Your task to perform on an android device: turn on sleep mode Image 0: 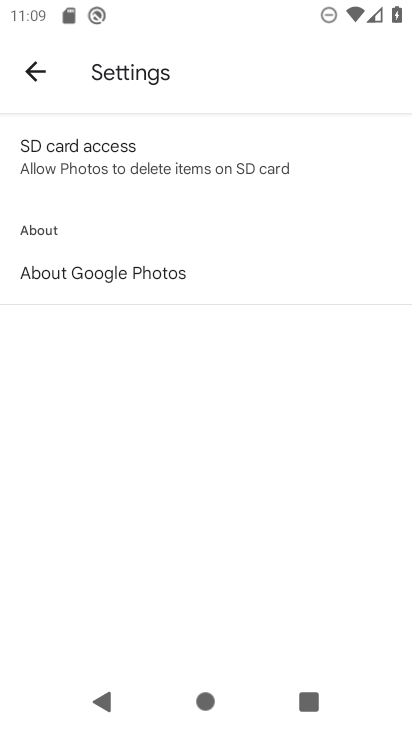
Step 0: press home button
Your task to perform on an android device: turn on sleep mode Image 1: 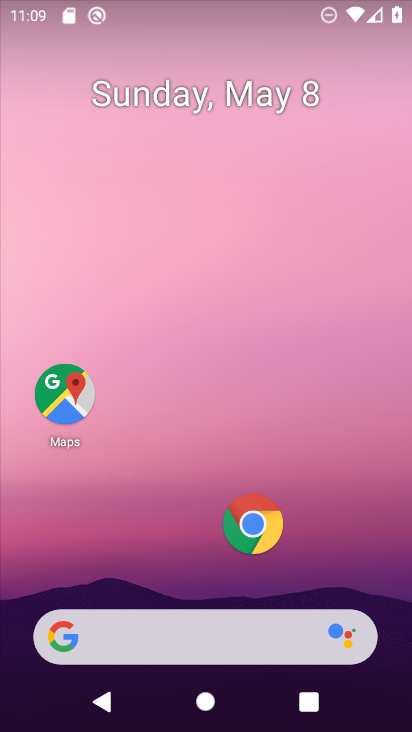
Step 1: drag from (156, 476) to (212, 24)
Your task to perform on an android device: turn on sleep mode Image 2: 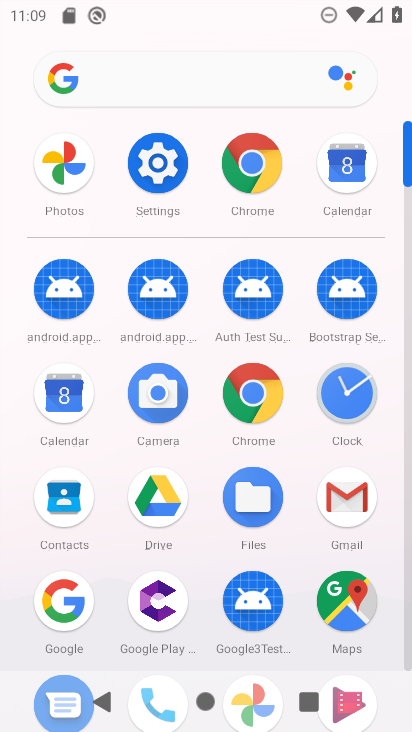
Step 2: click (175, 154)
Your task to perform on an android device: turn on sleep mode Image 3: 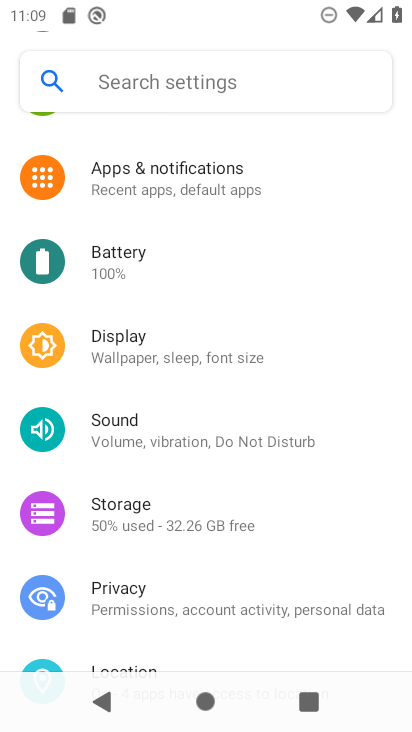
Step 3: click (176, 348)
Your task to perform on an android device: turn on sleep mode Image 4: 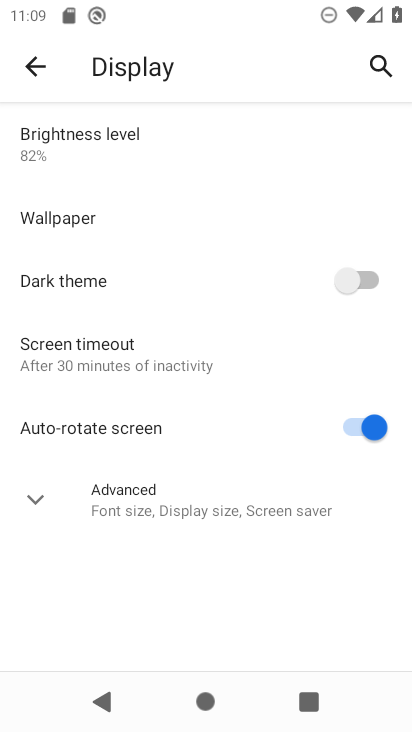
Step 4: click (28, 495)
Your task to perform on an android device: turn on sleep mode Image 5: 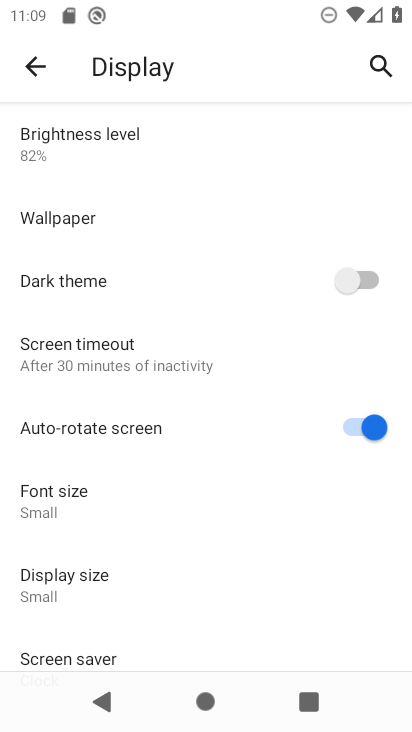
Step 5: task complete